Your task to perform on an android device: Find coffee shops on Maps Image 0: 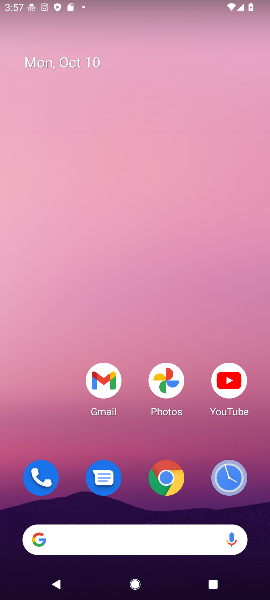
Step 0: drag from (132, 502) to (138, 70)
Your task to perform on an android device: Find coffee shops on Maps Image 1: 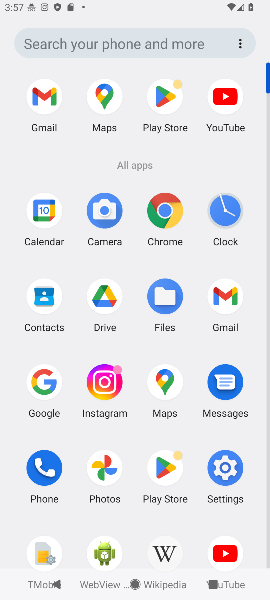
Step 1: click (106, 89)
Your task to perform on an android device: Find coffee shops on Maps Image 2: 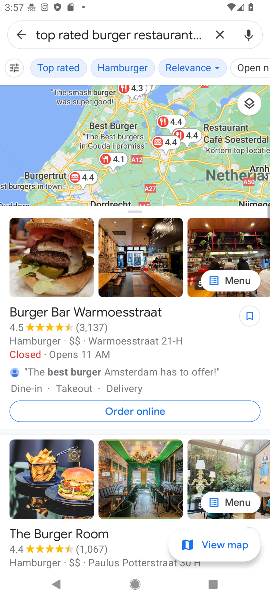
Step 2: click (220, 36)
Your task to perform on an android device: Find coffee shops on Maps Image 3: 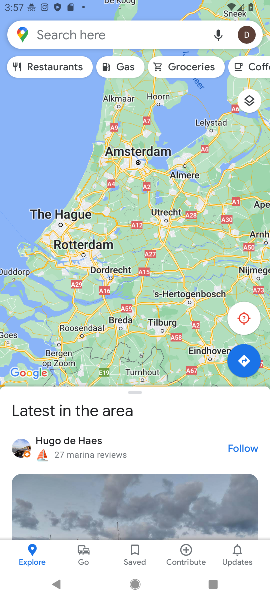
Step 3: click (64, 31)
Your task to perform on an android device: Find coffee shops on Maps Image 4: 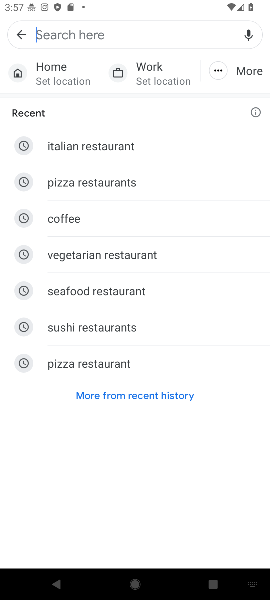
Step 4: click (97, 224)
Your task to perform on an android device: Find coffee shops on Maps Image 5: 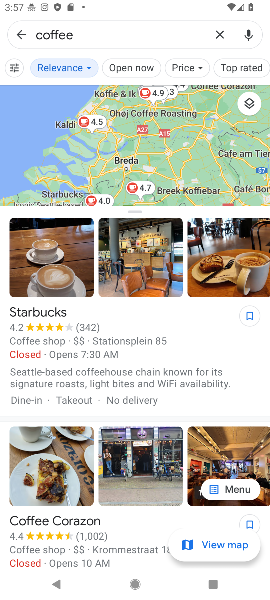
Step 5: task complete